Your task to perform on an android device: Open Reddit.com Image 0: 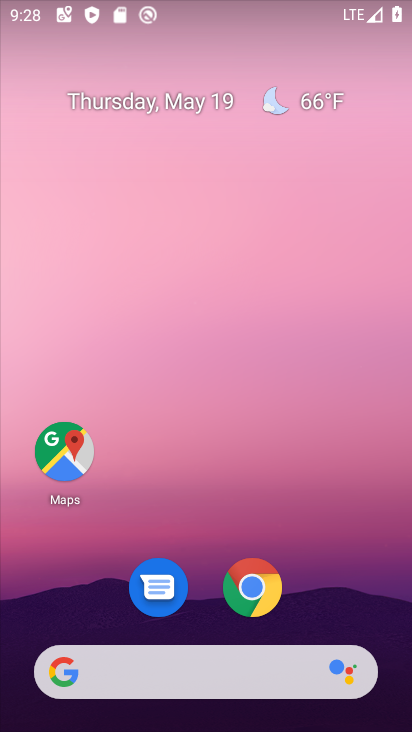
Step 0: drag from (274, 666) to (265, 211)
Your task to perform on an android device: Open Reddit.com Image 1: 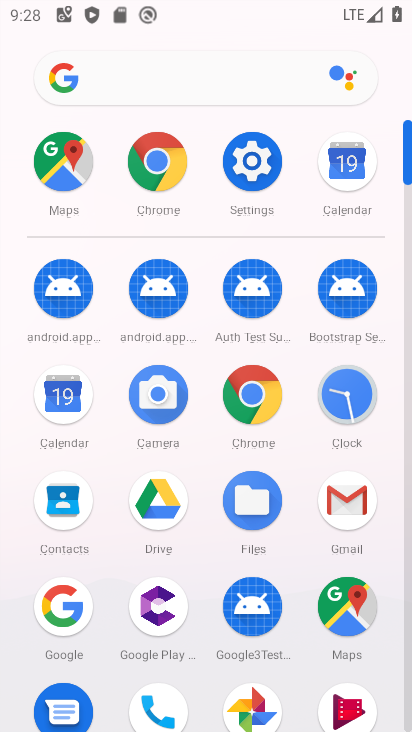
Step 1: click (147, 168)
Your task to perform on an android device: Open Reddit.com Image 2: 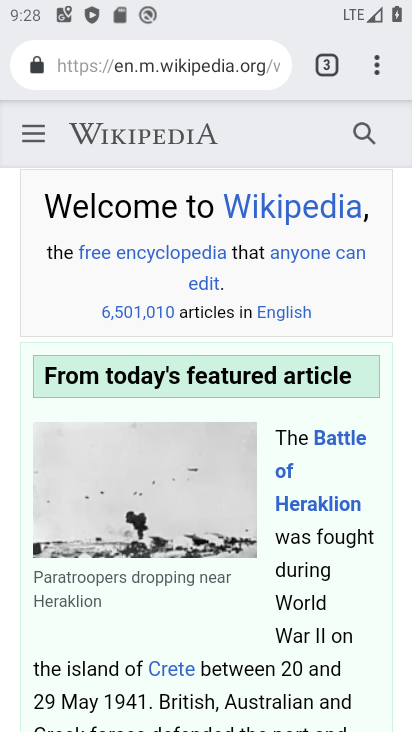
Step 2: click (322, 69)
Your task to perform on an android device: Open Reddit.com Image 3: 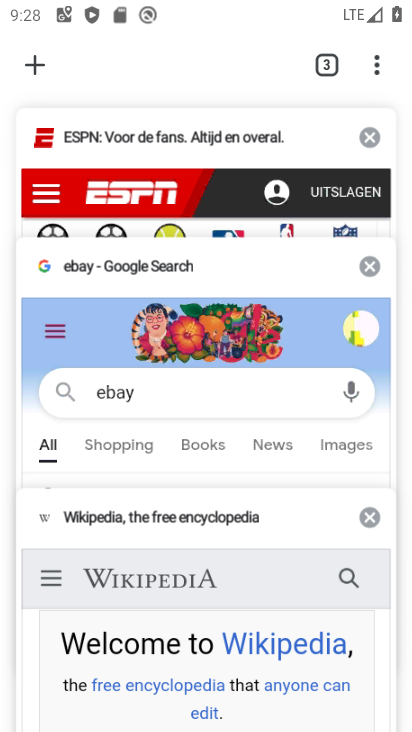
Step 3: click (28, 64)
Your task to perform on an android device: Open Reddit.com Image 4: 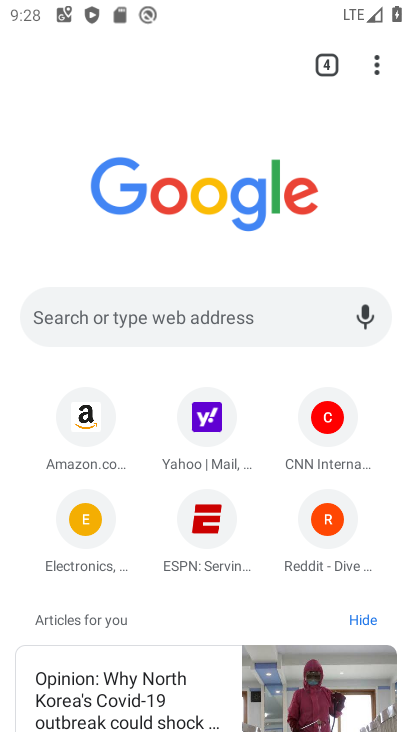
Step 4: click (136, 323)
Your task to perform on an android device: Open Reddit.com Image 5: 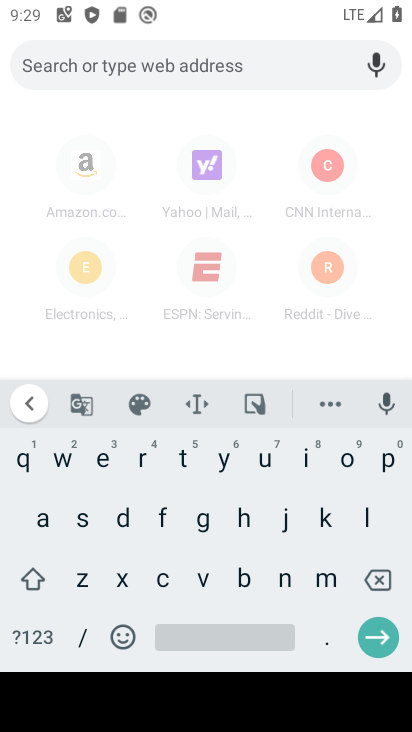
Step 5: click (128, 455)
Your task to perform on an android device: Open Reddit.com Image 6: 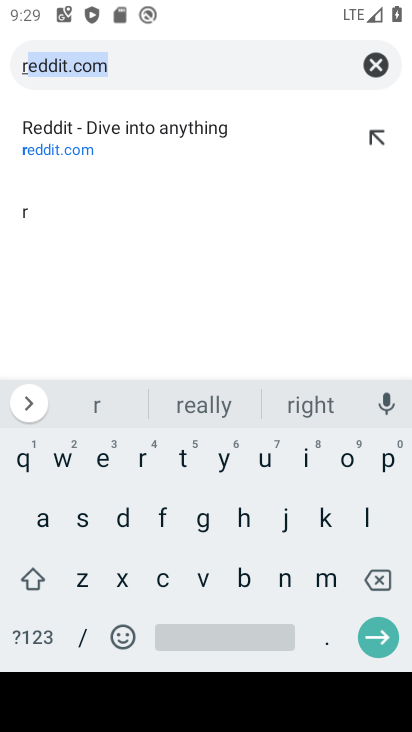
Step 6: click (165, 62)
Your task to perform on an android device: Open Reddit.com Image 7: 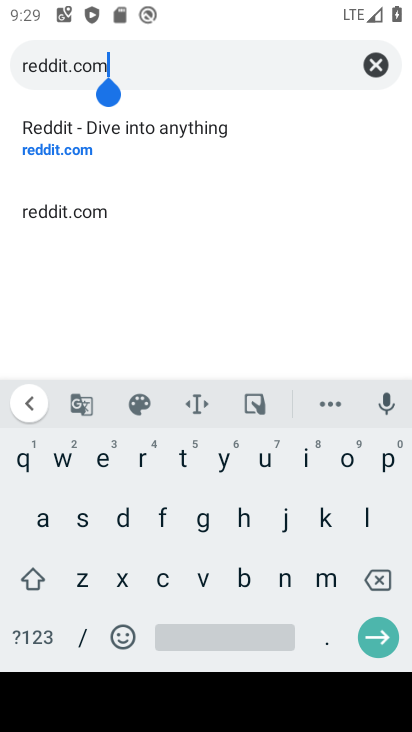
Step 7: click (374, 637)
Your task to perform on an android device: Open Reddit.com Image 8: 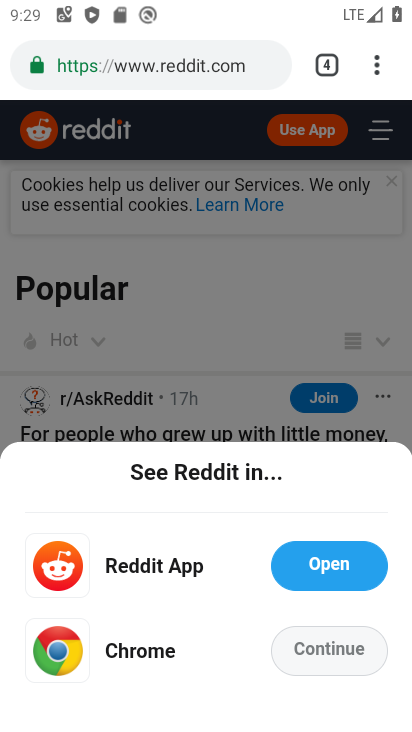
Step 8: click (158, 652)
Your task to perform on an android device: Open Reddit.com Image 9: 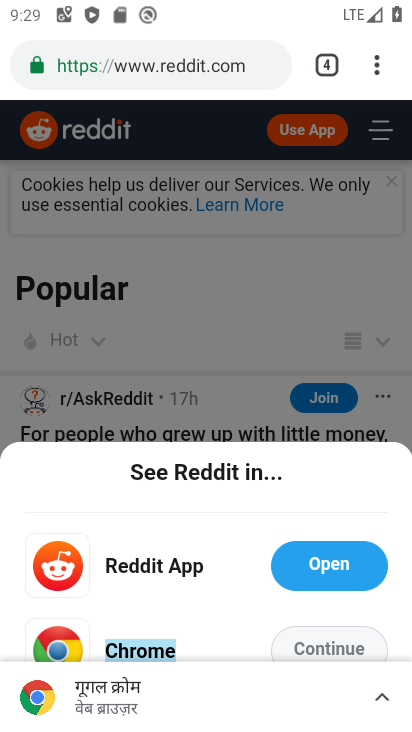
Step 9: click (193, 634)
Your task to perform on an android device: Open Reddit.com Image 10: 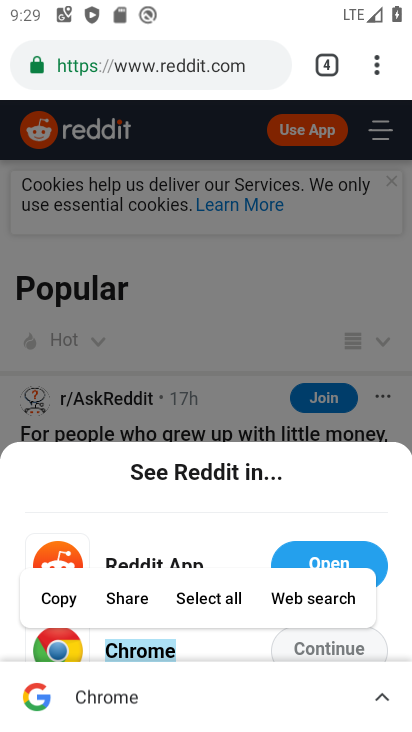
Step 10: click (248, 654)
Your task to perform on an android device: Open Reddit.com Image 11: 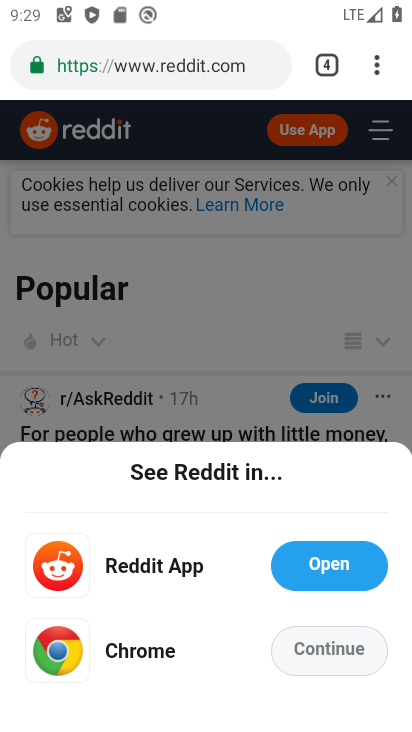
Step 11: click (320, 645)
Your task to perform on an android device: Open Reddit.com Image 12: 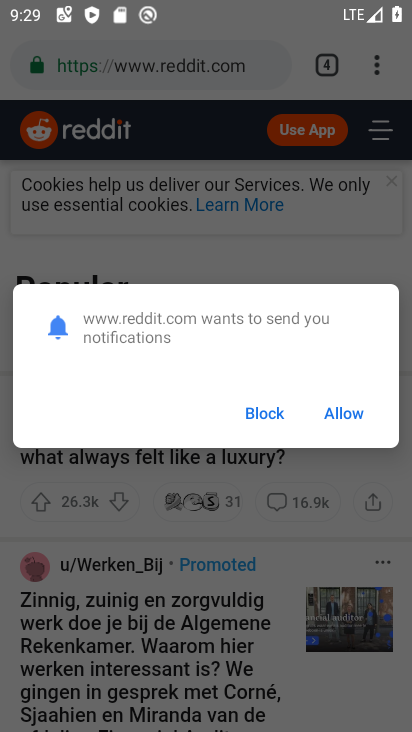
Step 12: click (340, 406)
Your task to perform on an android device: Open Reddit.com Image 13: 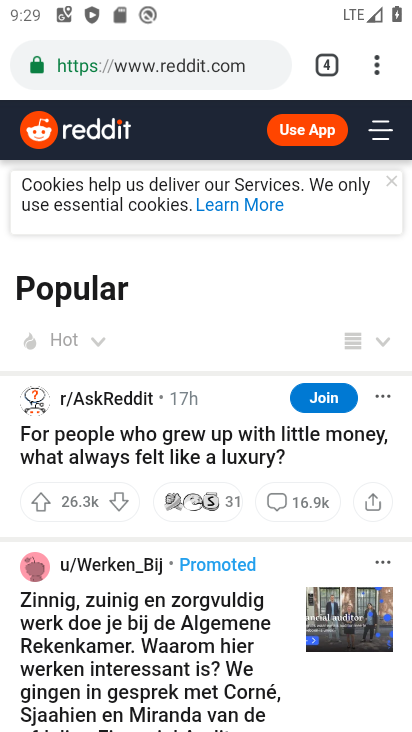
Step 13: task complete